Your task to perform on an android device: open app "Adobe Acrobat Reader: Edit PDF" (install if not already installed) Image 0: 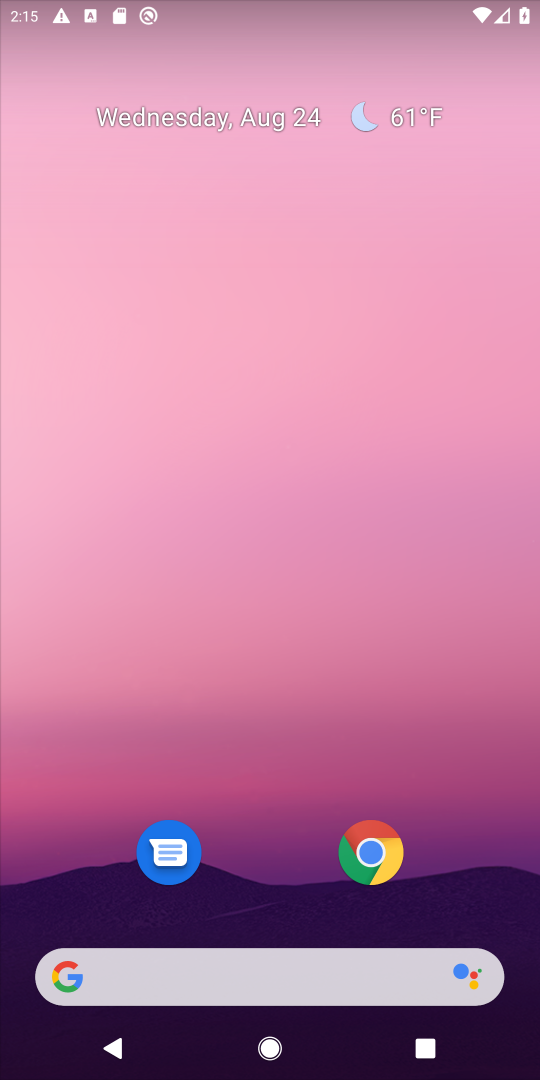
Step 0: drag from (326, 780) to (289, 250)
Your task to perform on an android device: open app "Adobe Acrobat Reader: Edit PDF" (install if not already installed) Image 1: 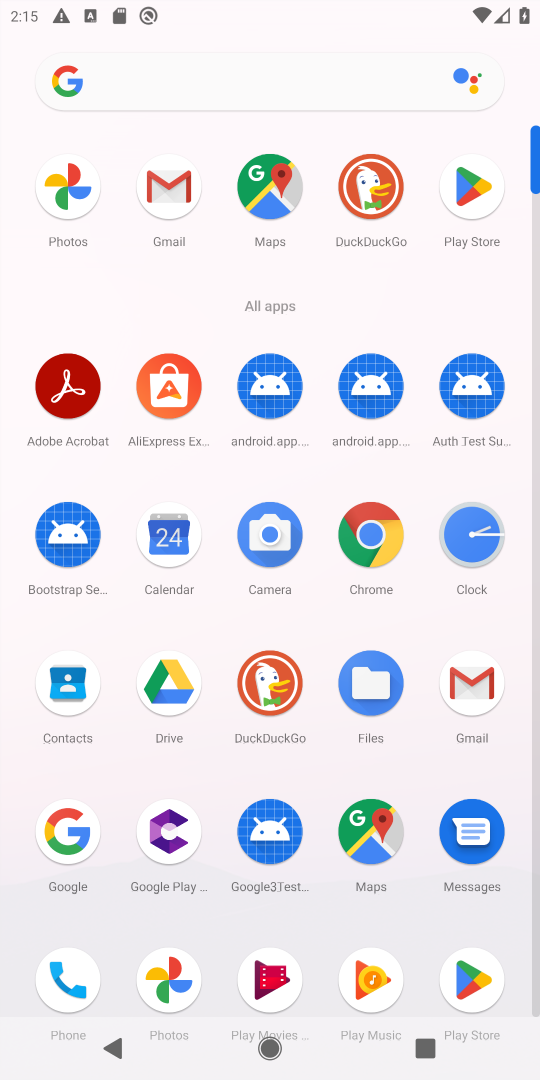
Step 1: click (463, 190)
Your task to perform on an android device: open app "Adobe Acrobat Reader: Edit PDF" (install if not already installed) Image 2: 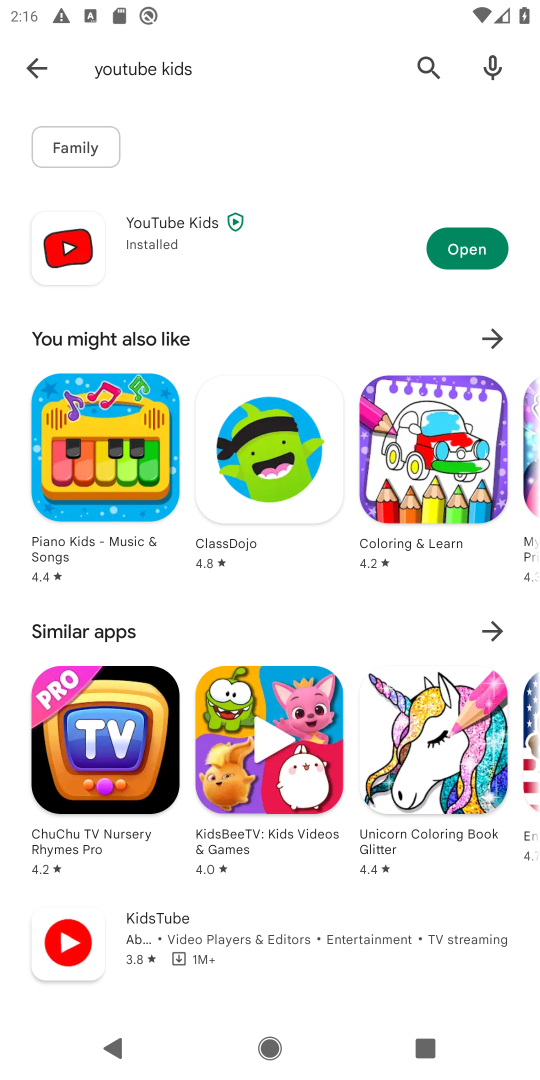
Step 2: click (430, 67)
Your task to perform on an android device: open app "Adobe Acrobat Reader: Edit PDF" (install if not already installed) Image 3: 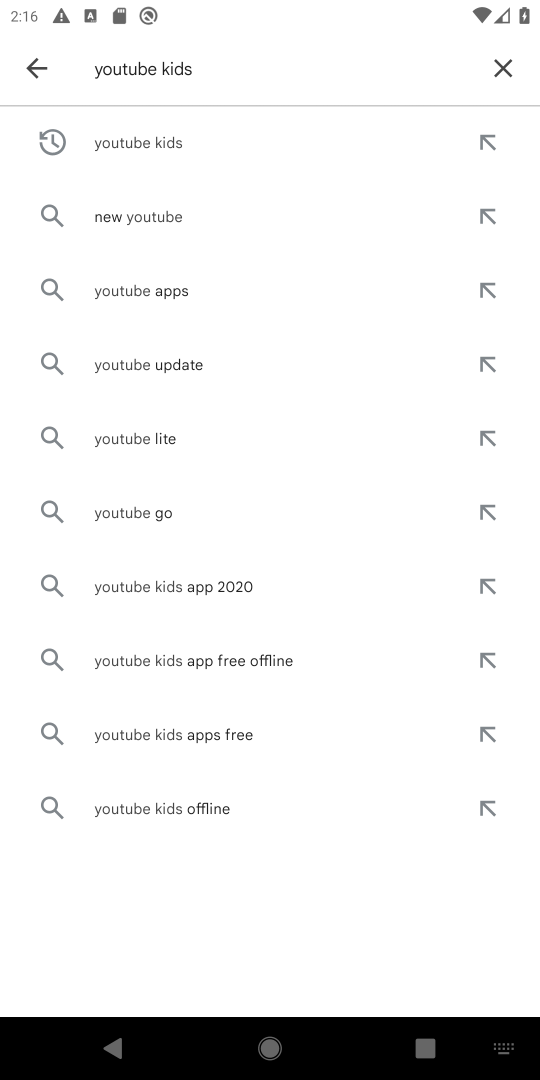
Step 3: click (511, 66)
Your task to perform on an android device: open app "Adobe Acrobat Reader: Edit PDF" (install if not already installed) Image 4: 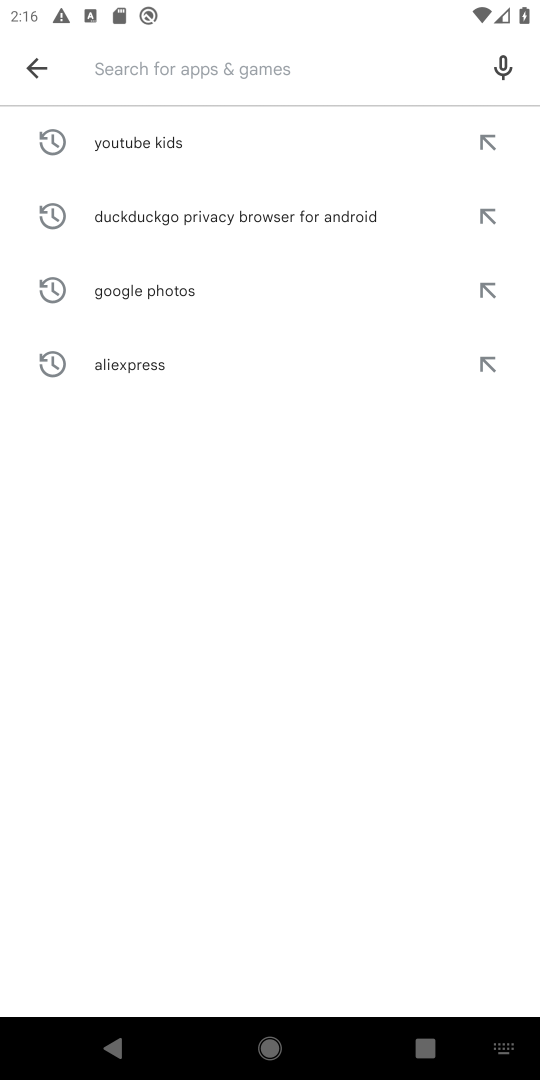
Step 4: type "Adobe Acrobat Reader: Edit PDF"
Your task to perform on an android device: open app "Adobe Acrobat Reader: Edit PDF" (install if not already installed) Image 5: 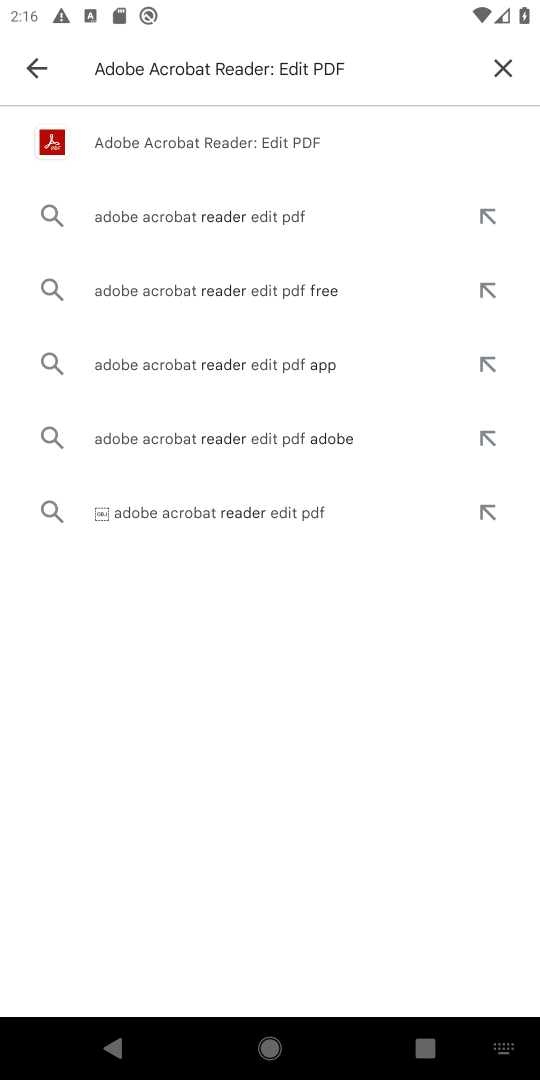
Step 5: click (249, 131)
Your task to perform on an android device: open app "Adobe Acrobat Reader: Edit PDF" (install if not already installed) Image 6: 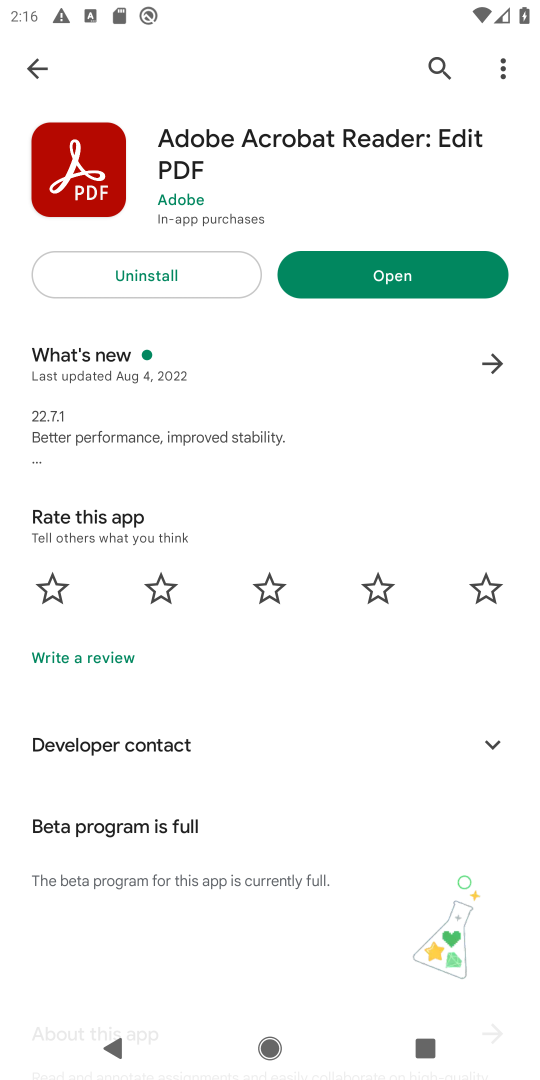
Step 6: click (417, 277)
Your task to perform on an android device: open app "Adobe Acrobat Reader: Edit PDF" (install if not already installed) Image 7: 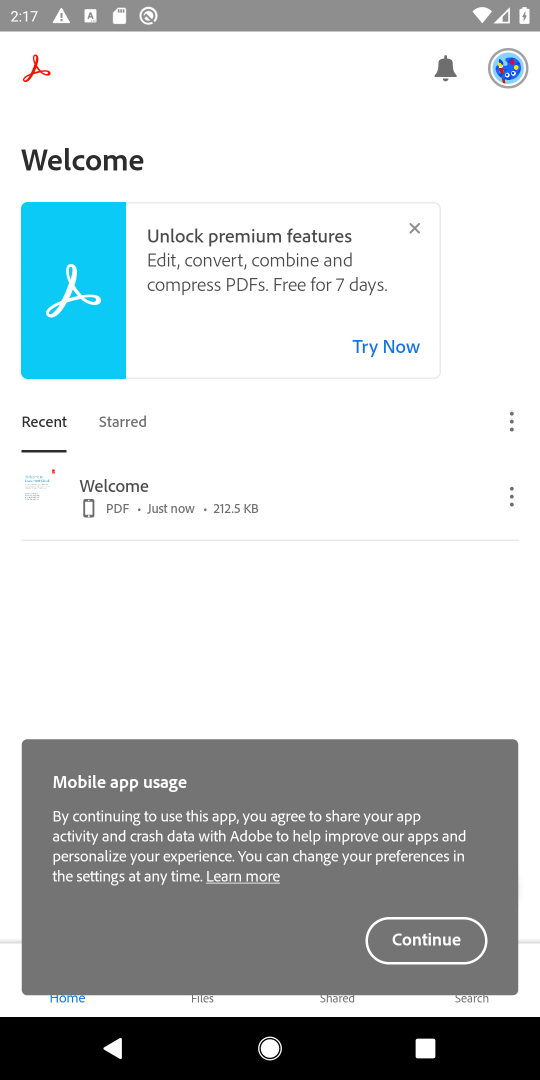
Step 7: task complete